Your task to perform on an android device: check data usage Image 0: 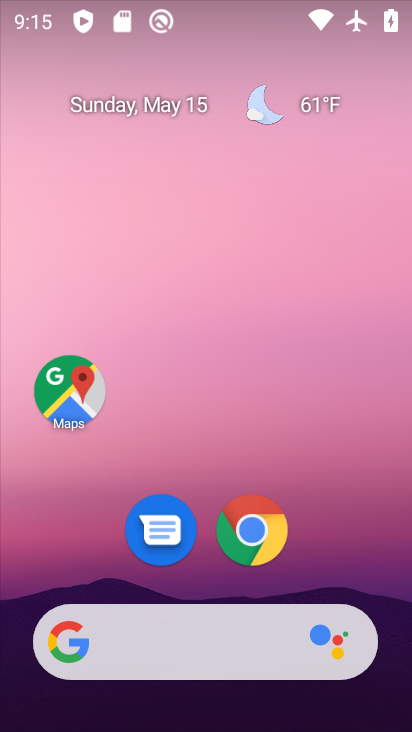
Step 0: drag from (199, 717) to (192, 179)
Your task to perform on an android device: check data usage Image 1: 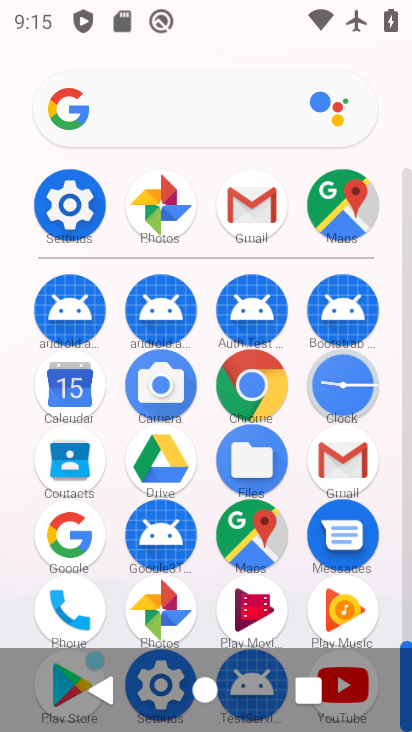
Step 1: click (62, 204)
Your task to perform on an android device: check data usage Image 2: 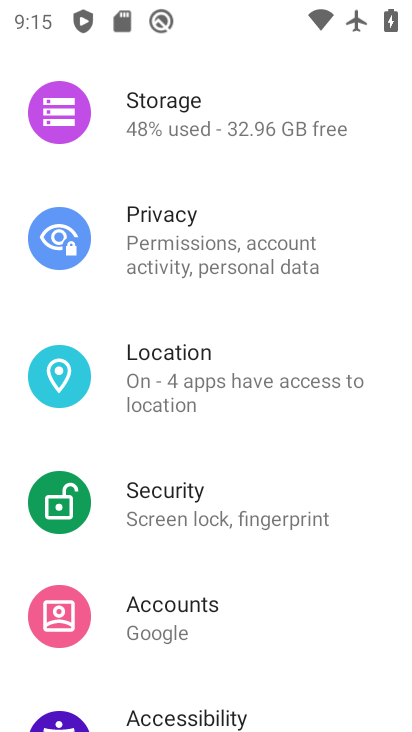
Step 2: drag from (278, 194) to (272, 497)
Your task to perform on an android device: check data usage Image 3: 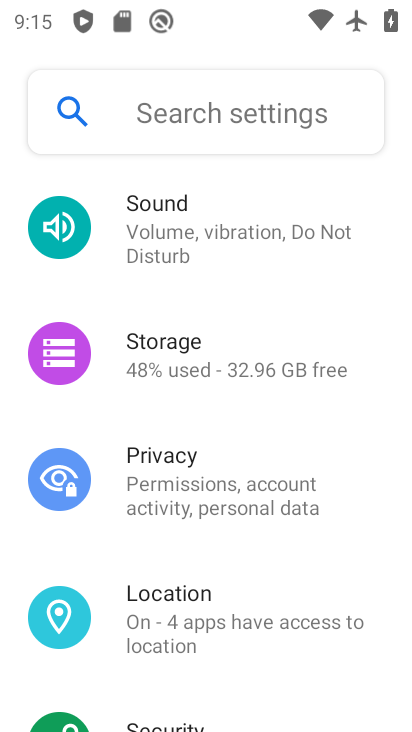
Step 3: drag from (239, 247) to (230, 599)
Your task to perform on an android device: check data usage Image 4: 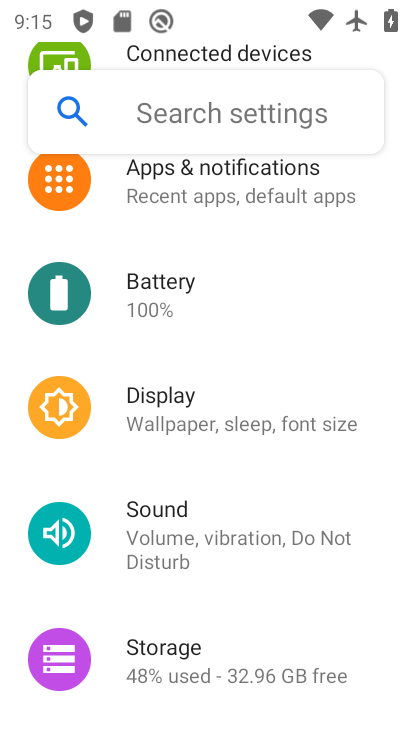
Step 4: drag from (230, 211) to (235, 577)
Your task to perform on an android device: check data usage Image 5: 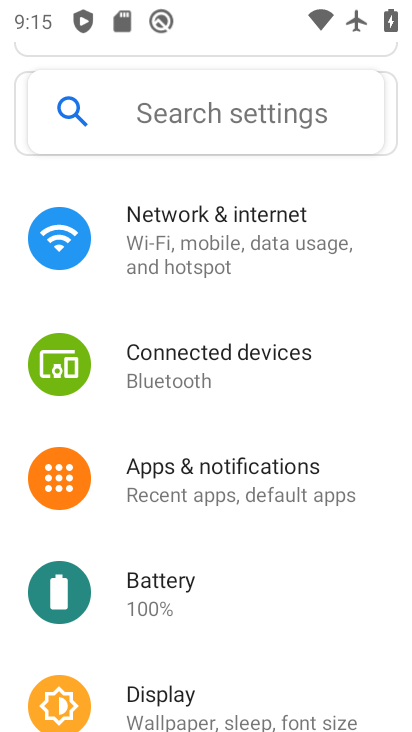
Step 5: click (179, 242)
Your task to perform on an android device: check data usage Image 6: 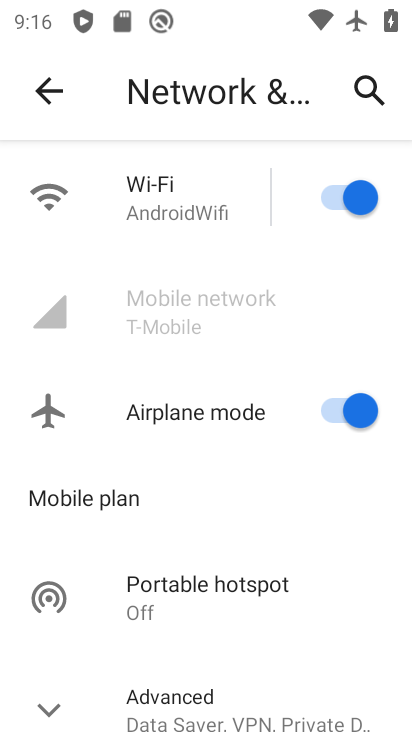
Step 6: click (334, 414)
Your task to perform on an android device: check data usage Image 7: 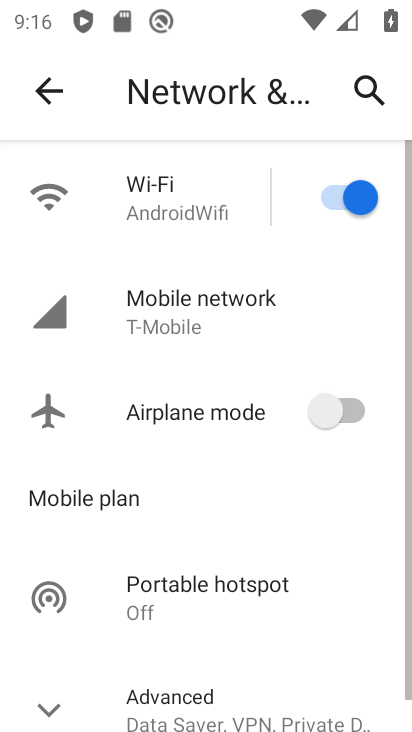
Step 7: click (179, 309)
Your task to perform on an android device: check data usage Image 8: 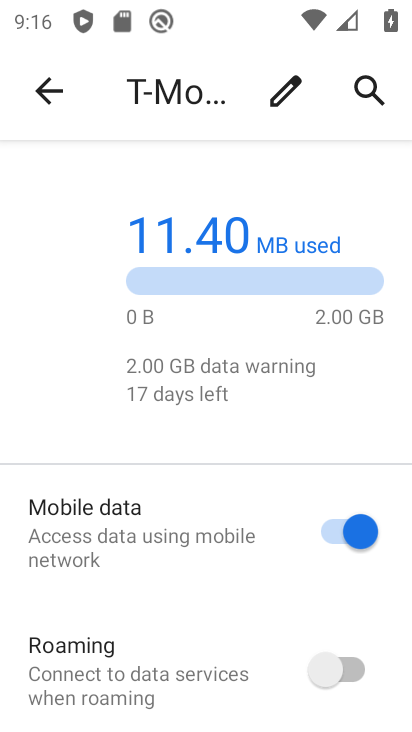
Step 8: drag from (117, 624) to (147, 260)
Your task to perform on an android device: check data usage Image 9: 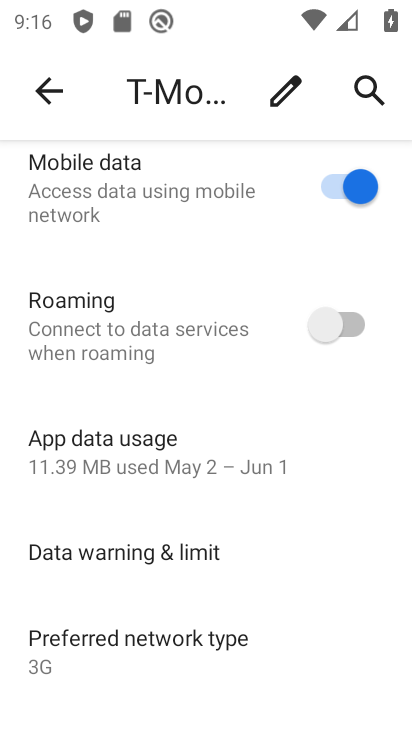
Step 9: click (127, 446)
Your task to perform on an android device: check data usage Image 10: 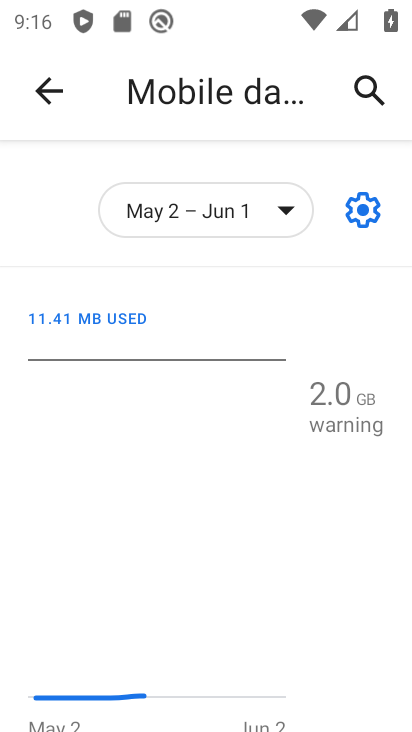
Step 10: task complete